Your task to perform on an android device: Open sound settings Image 0: 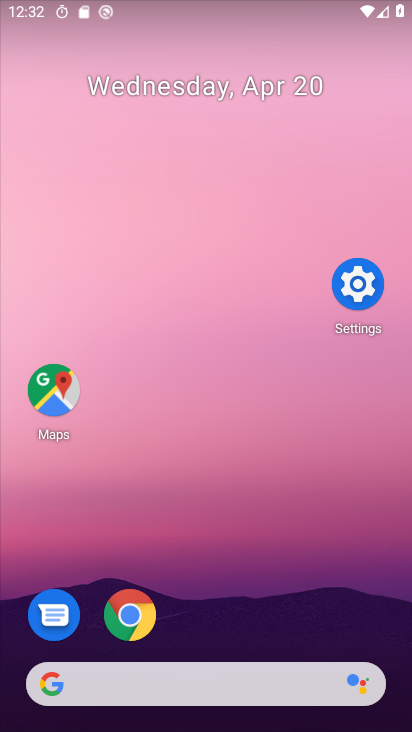
Step 0: drag from (220, 576) to (248, 180)
Your task to perform on an android device: Open sound settings Image 1: 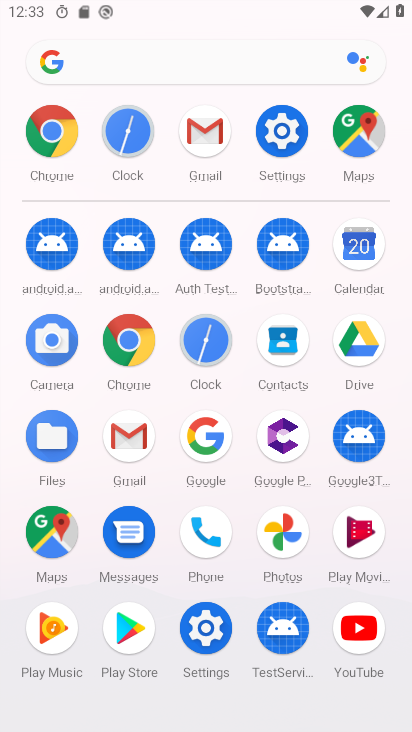
Step 1: click (209, 618)
Your task to perform on an android device: Open sound settings Image 2: 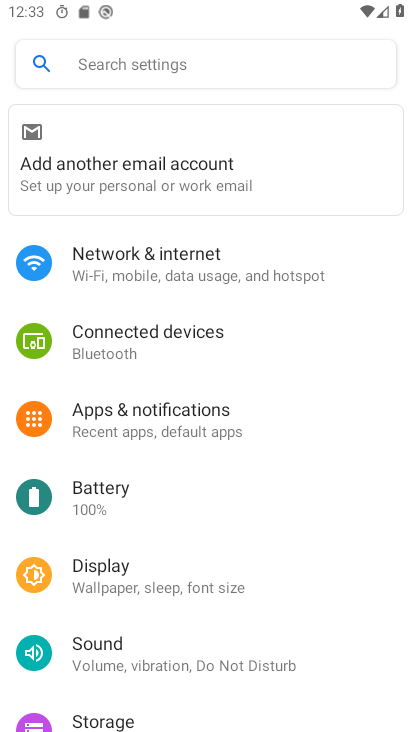
Step 2: drag from (170, 605) to (212, 287)
Your task to perform on an android device: Open sound settings Image 3: 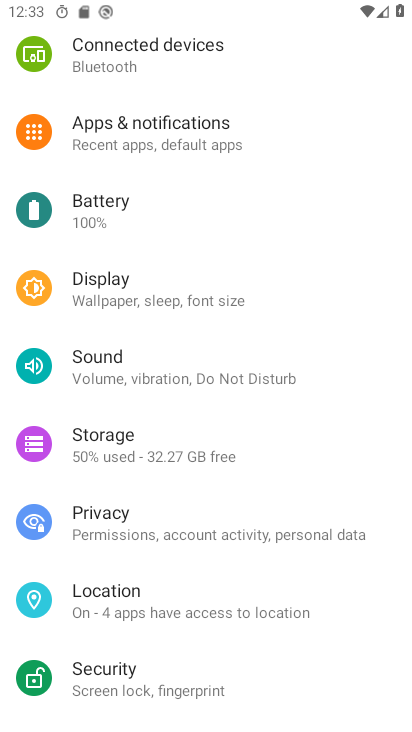
Step 3: click (146, 364)
Your task to perform on an android device: Open sound settings Image 4: 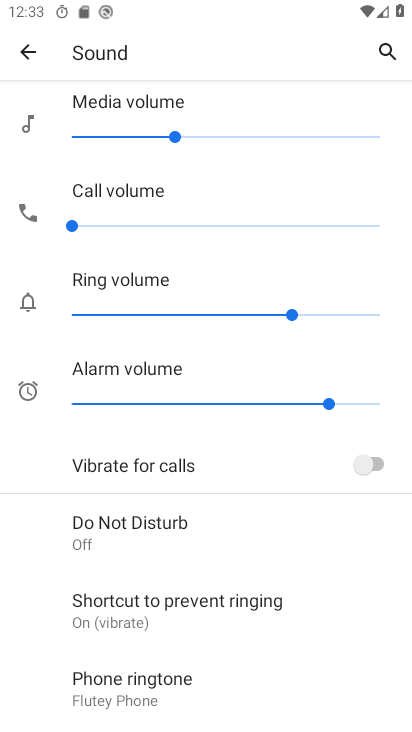
Step 4: task complete